Your task to perform on an android device: Open Google Chrome and open the bookmarks view Image 0: 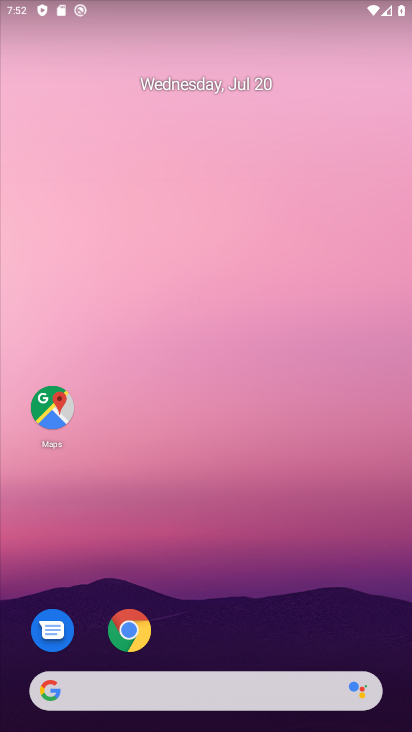
Step 0: click (135, 636)
Your task to perform on an android device: Open Google Chrome and open the bookmarks view Image 1: 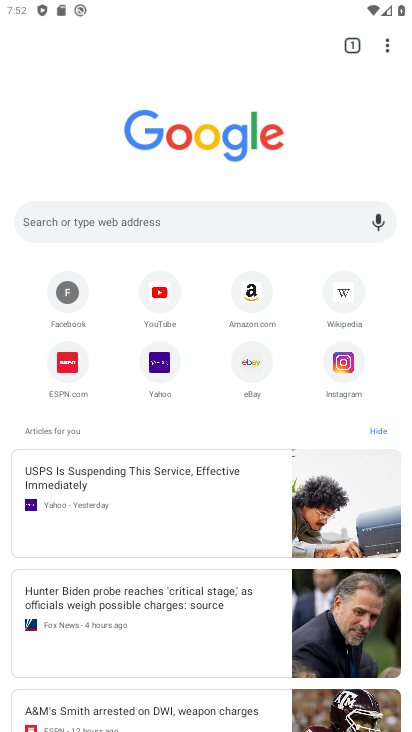
Step 1: click (386, 46)
Your task to perform on an android device: Open Google Chrome and open the bookmarks view Image 2: 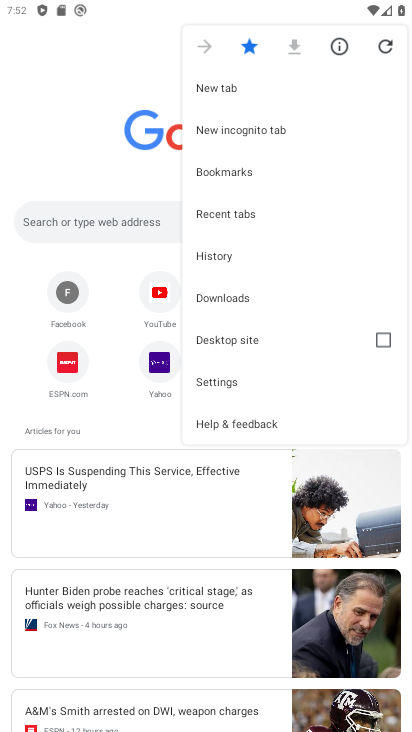
Step 2: click (300, 173)
Your task to perform on an android device: Open Google Chrome and open the bookmarks view Image 3: 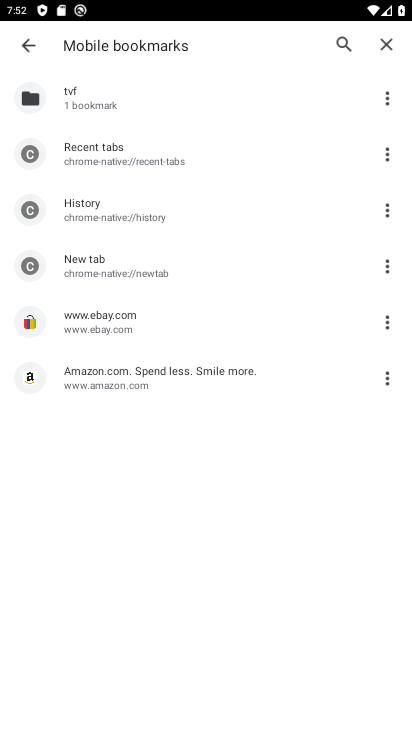
Step 3: task complete